Your task to perform on an android device: What's the weather going to be this weekend? Image 0: 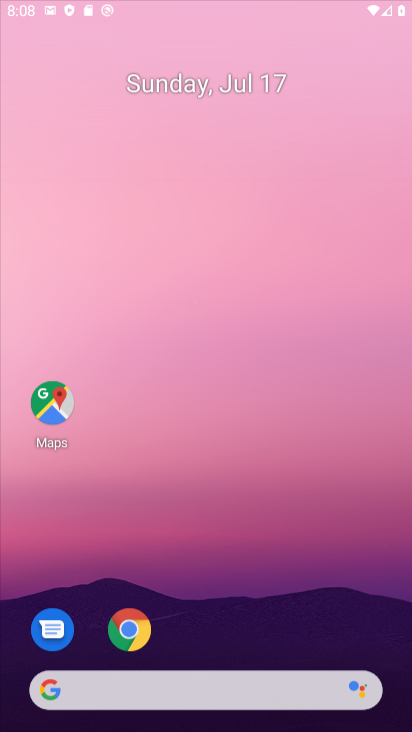
Step 0: click (133, 0)
Your task to perform on an android device: What's the weather going to be this weekend? Image 1: 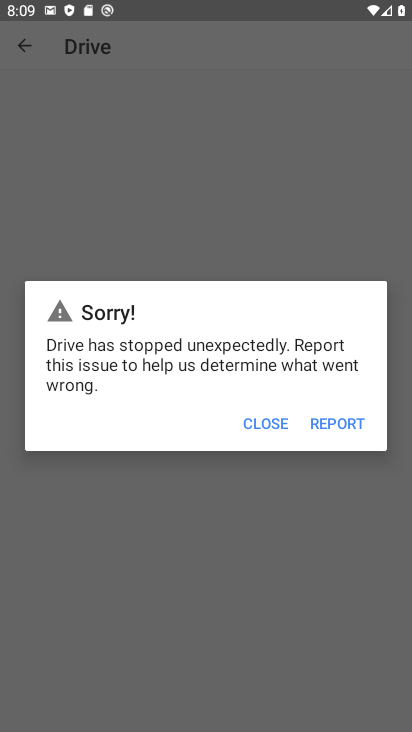
Step 1: press home button
Your task to perform on an android device: What's the weather going to be this weekend? Image 2: 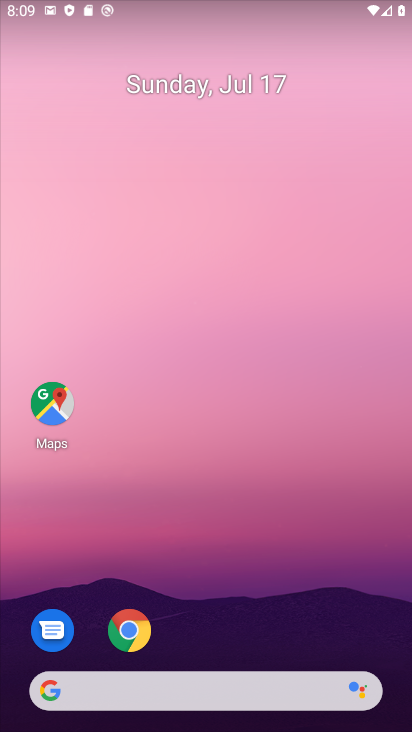
Step 2: click (232, 685)
Your task to perform on an android device: What's the weather going to be this weekend? Image 3: 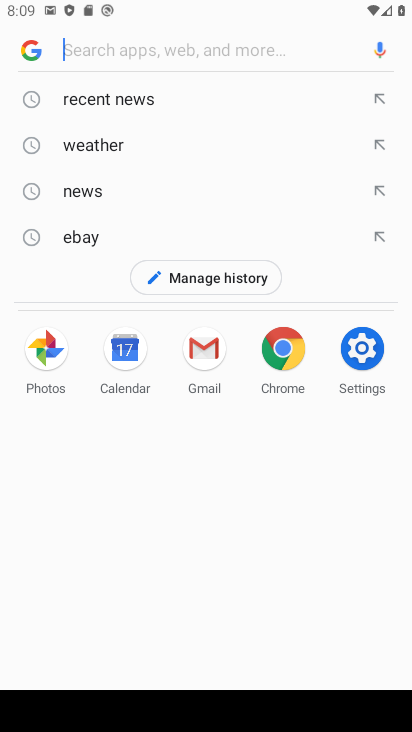
Step 3: click (132, 149)
Your task to perform on an android device: What's the weather going to be this weekend? Image 4: 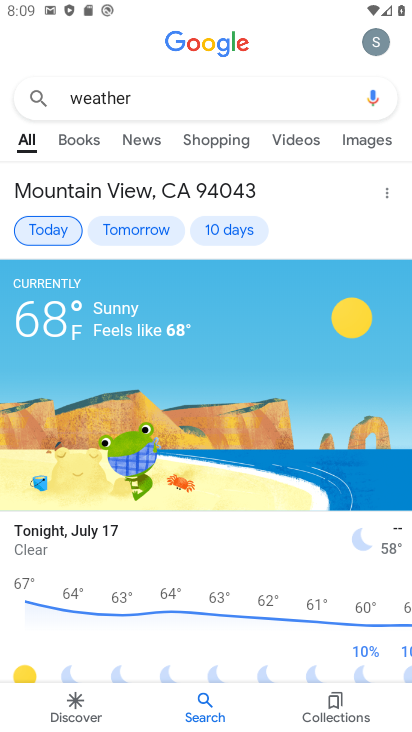
Step 4: click (228, 218)
Your task to perform on an android device: What's the weather going to be this weekend? Image 5: 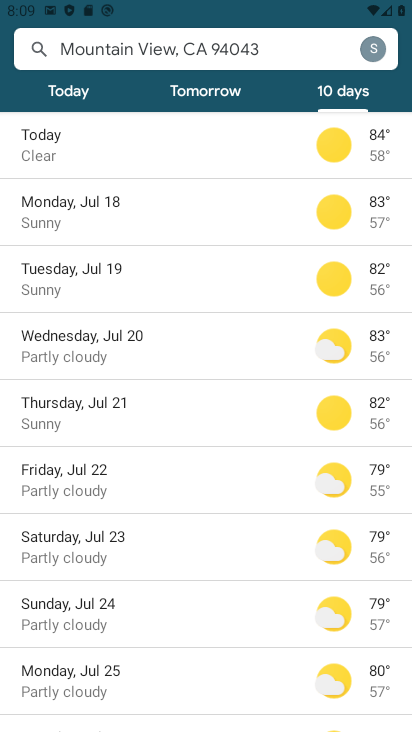
Step 5: task complete